Your task to perform on an android device: toggle data saver in the chrome app Image 0: 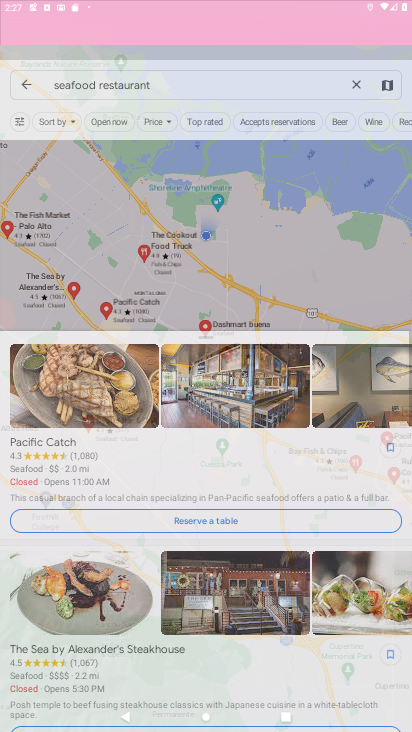
Step 0: drag from (170, 664) to (204, 36)
Your task to perform on an android device: toggle data saver in the chrome app Image 1: 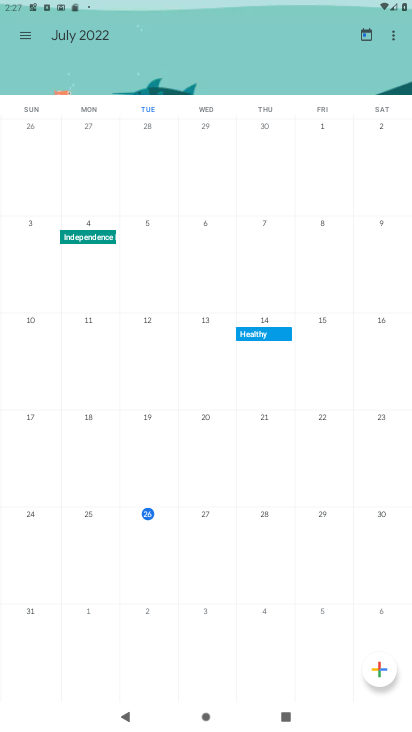
Step 1: press home button
Your task to perform on an android device: toggle data saver in the chrome app Image 2: 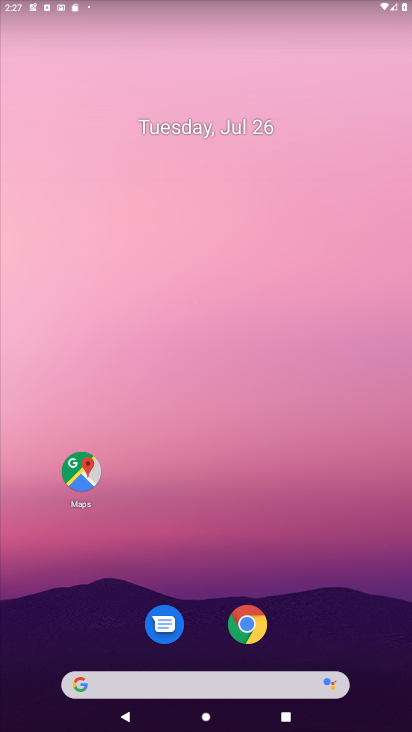
Step 2: click (250, 628)
Your task to perform on an android device: toggle data saver in the chrome app Image 3: 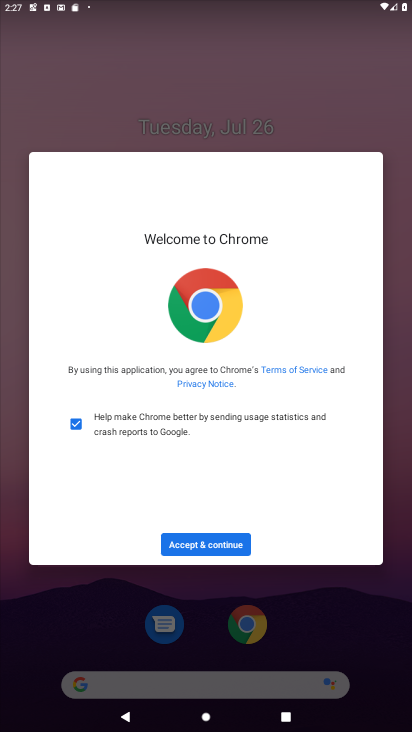
Step 3: click (204, 547)
Your task to perform on an android device: toggle data saver in the chrome app Image 4: 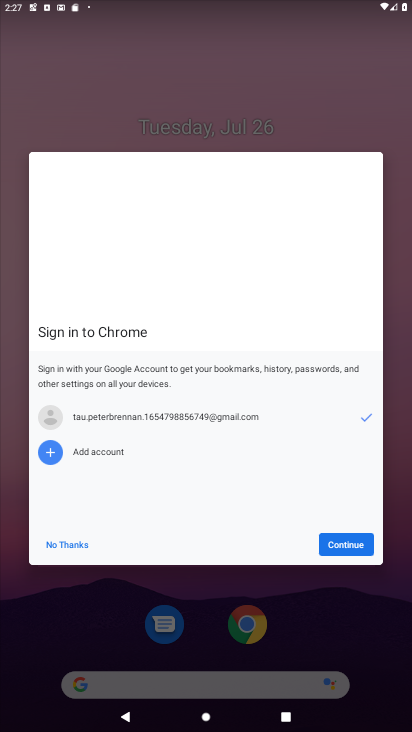
Step 4: click (348, 545)
Your task to perform on an android device: toggle data saver in the chrome app Image 5: 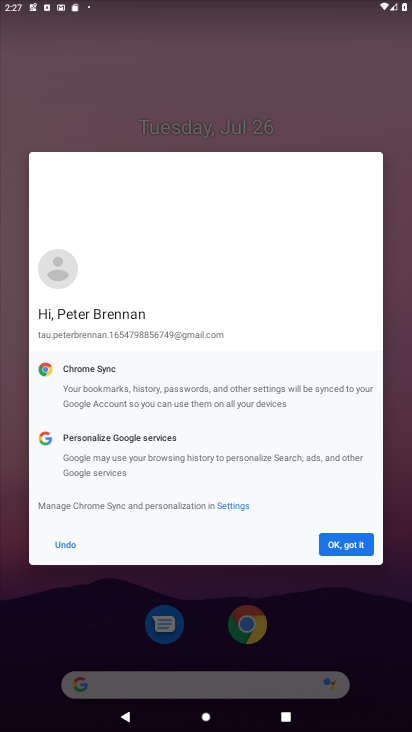
Step 5: click (348, 545)
Your task to perform on an android device: toggle data saver in the chrome app Image 6: 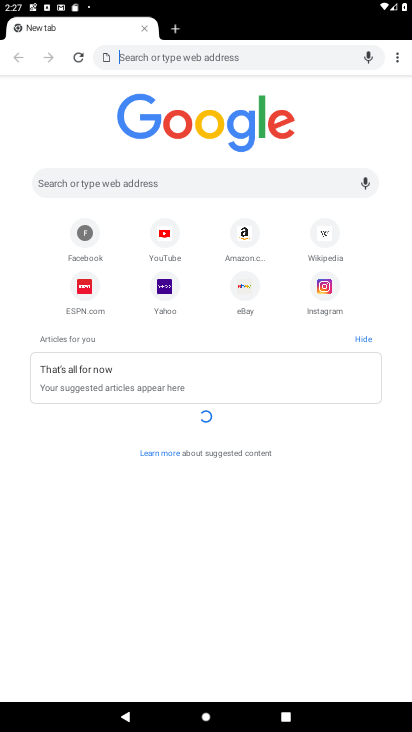
Step 6: click (397, 55)
Your task to perform on an android device: toggle data saver in the chrome app Image 7: 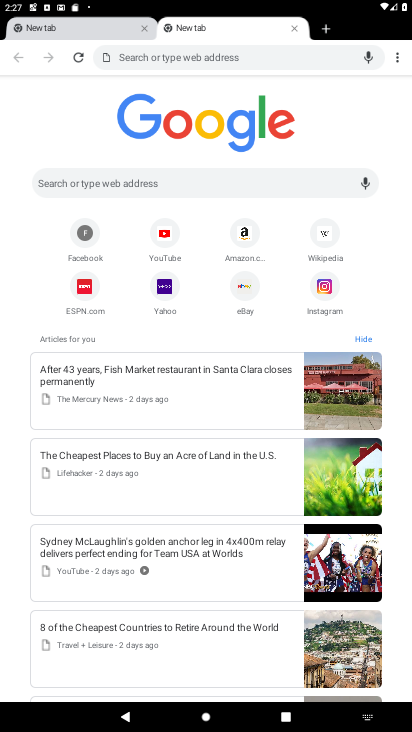
Step 7: click (397, 57)
Your task to perform on an android device: toggle data saver in the chrome app Image 8: 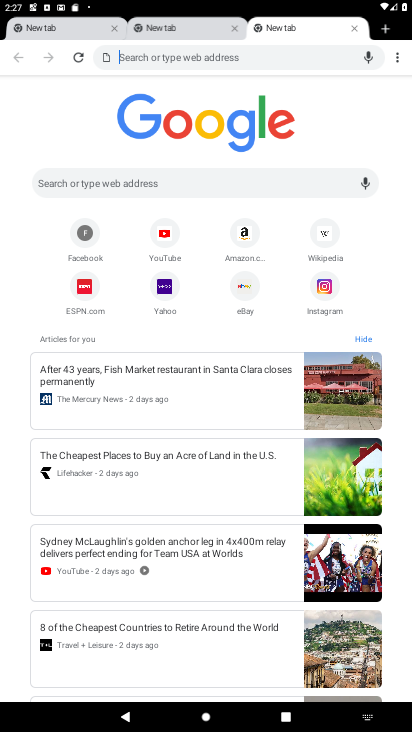
Step 8: click (353, 29)
Your task to perform on an android device: toggle data saver in the chrome app Image 9: 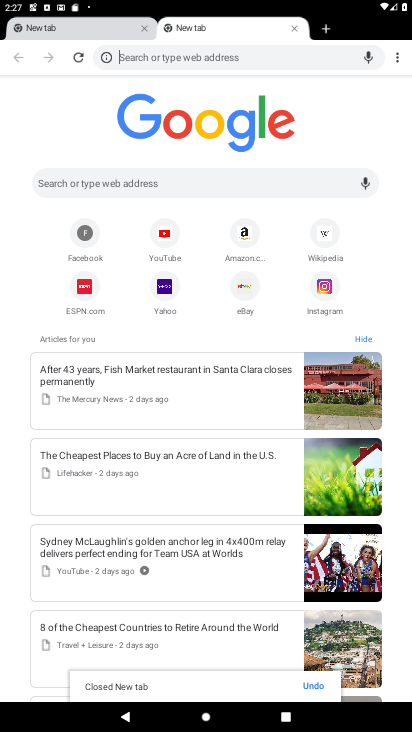
Step 9: click (400, 65)
Your task to perform on an android device: toggle data saver in the chrome app Image 10: 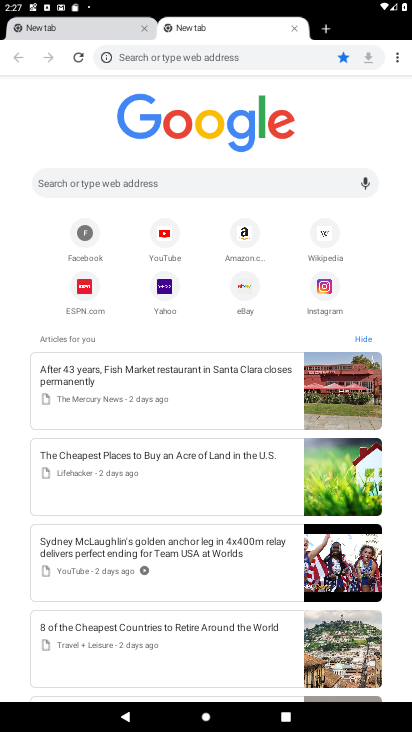
Step 10: click (395, 52)
Your task to perform on an android device: toggle data saver in the chrome app Image 11: 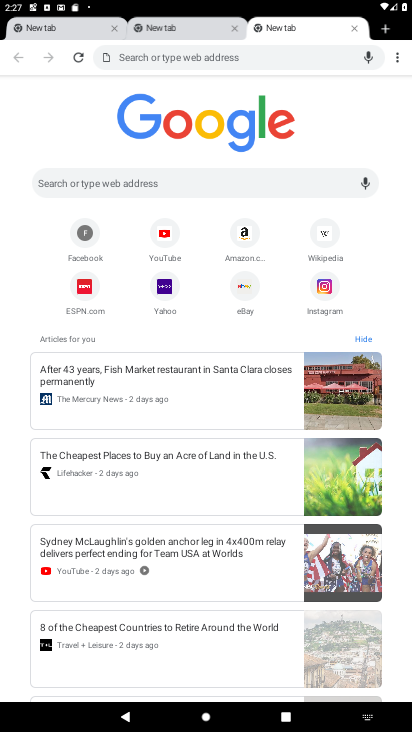
Step 11: click (399, 60)
Your task to perform on an android device: toggle data saver in the chrome app Image 12: 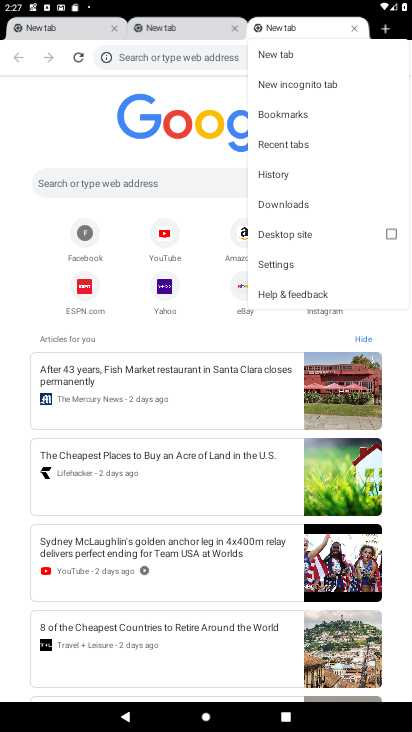
Step 12: click (265, 259)
Your task to perform on an android device: toggle data saver in the chrome app Image 13: 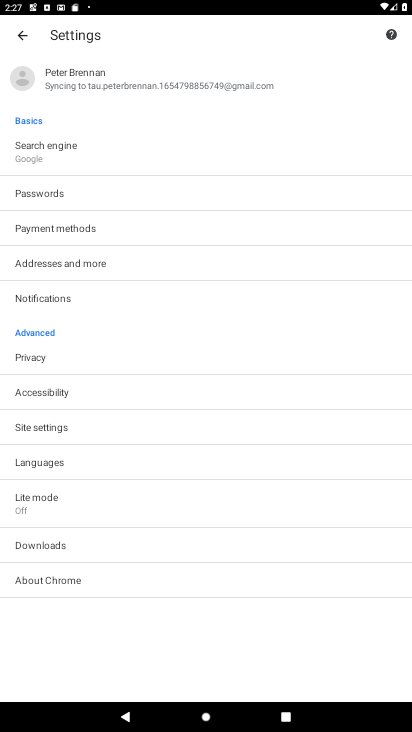
Step 13: click (42, 500)
Your task to perform on an android device: toggle data saver in the chrome app Image 14: 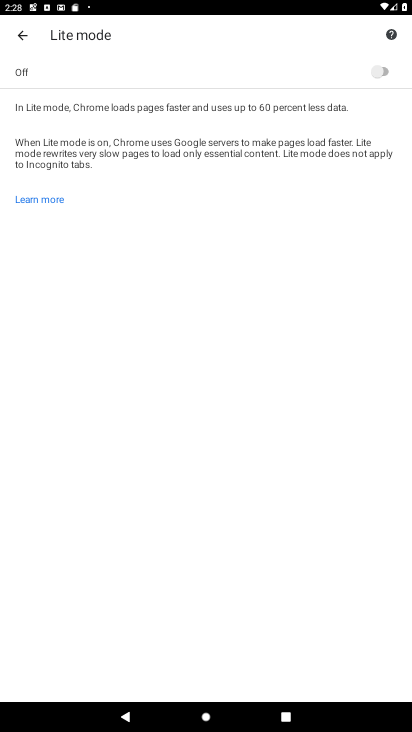
Step 14: click (392, 66)
Your task to perform on an android device: toggle data saver in the chrome app Image 15: 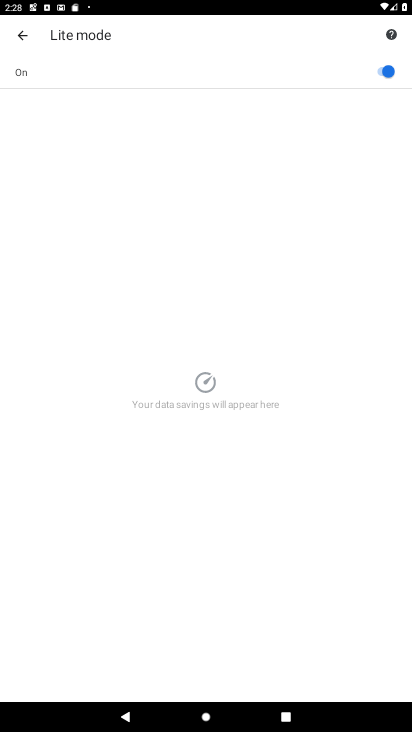
Step 15: task complete